Your task to perform on an android device: Go to notification settings Image 0: 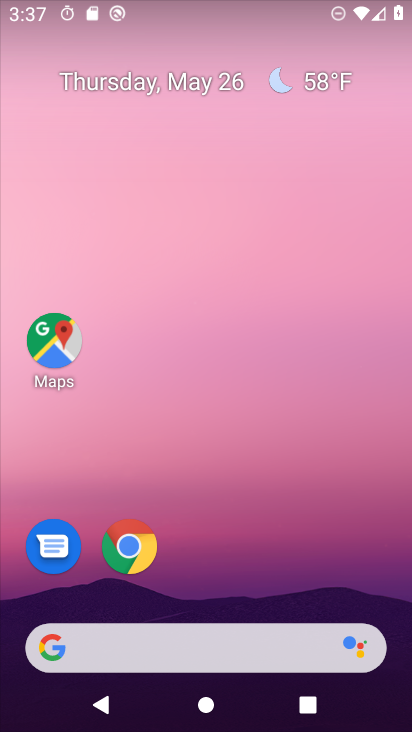
Step 0: press home button
Your task to perform on an android device: Go to notification settings Image 1: 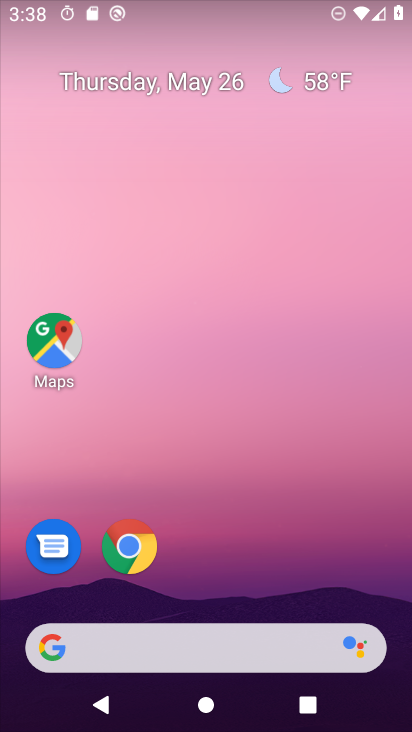
Step 1: drag from (229, 609) to (288, 37)
Your task to perform on an android device: Go to notification settings Image 2: 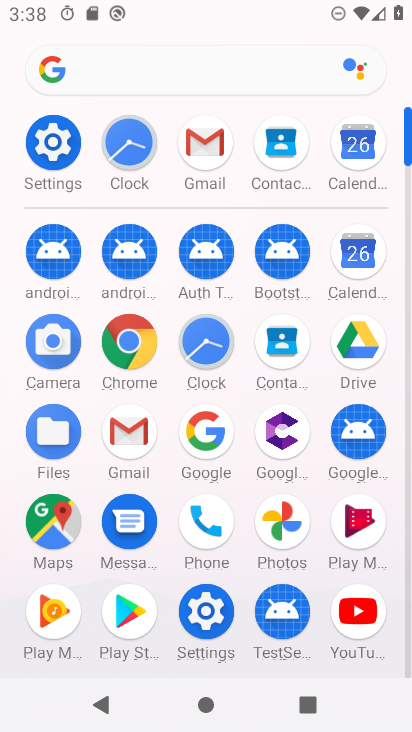
Step 2: click (52, 142)
Your task to perform on an android device: Go to notification settings Image 3: 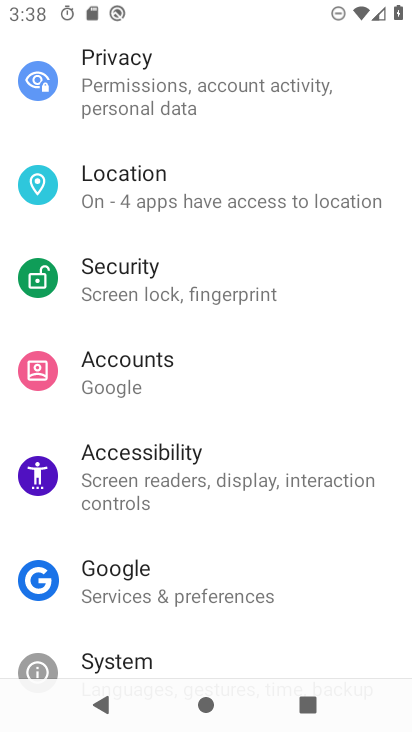
Step 3: drag from (183, 82) to (238, 634)
Your task to perform on an android device: Go to notification settings Image 4: 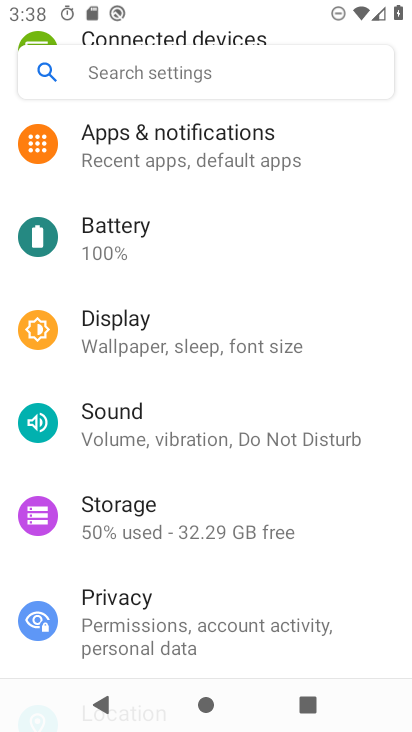
Step 4: click (214, 135)
Your task to perform on an android device: Go to notification settings Image 5: 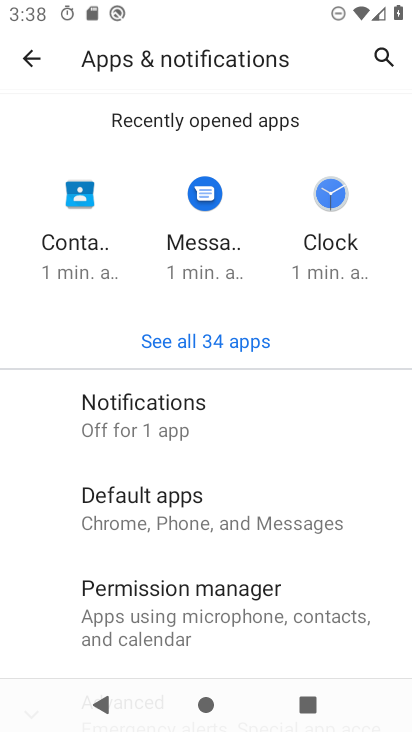
Step 5: click (201, 418)
Your task to perform on an android device: Go to notification settings Image 6: 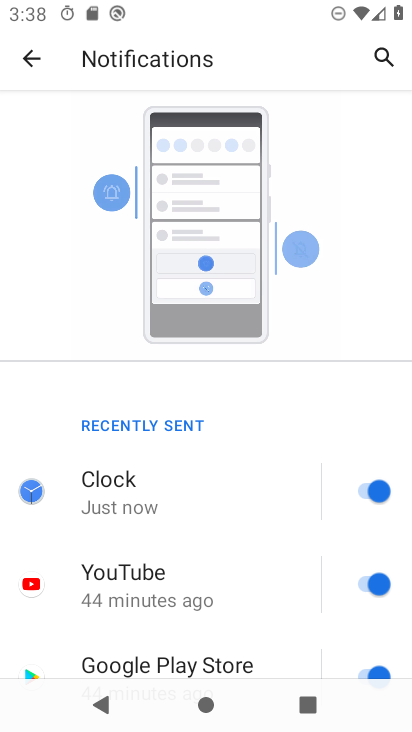
Step 6: drag from (264, 651) to (286, 99)
Your task to perform on an android device: Go to notification settings Image 7: 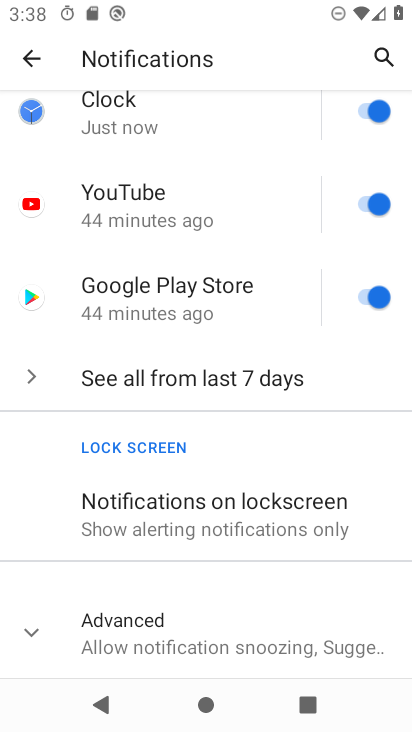
Step 7: click (26, 637)
Your task to perform on an android device: Go to notification settings Image 8: 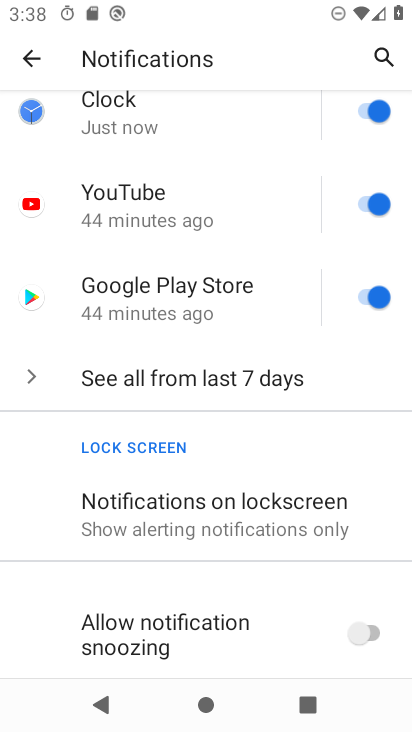
Step 8: task complete